Your task to perform on an android device: change the clock display to digital Image 0: 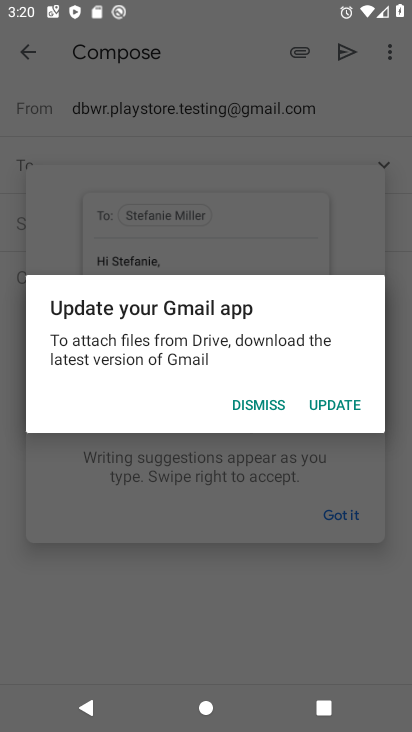
Step 0: press back button
Your task to perform on an android device: change the clock display to digital Image 1: 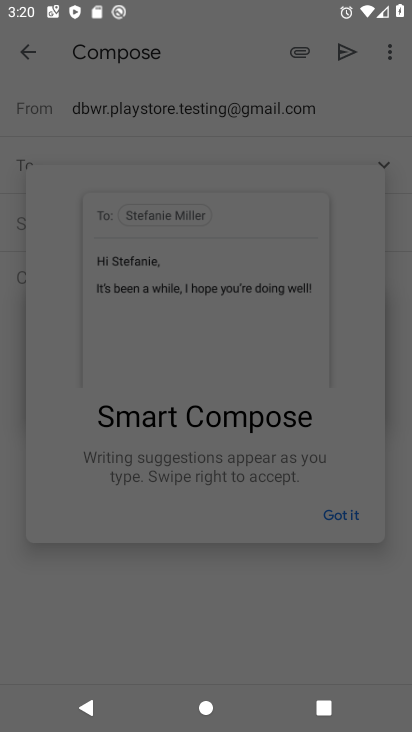
Step 1: press back button
Your task to perform on an android device: change the clock display to digital Image 2: 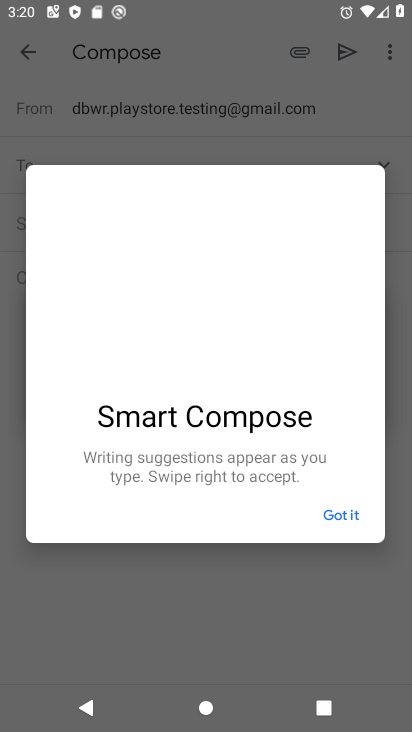
Step 2: press home button
Your task to perform on an android device: change the clock display to digital Image 3: 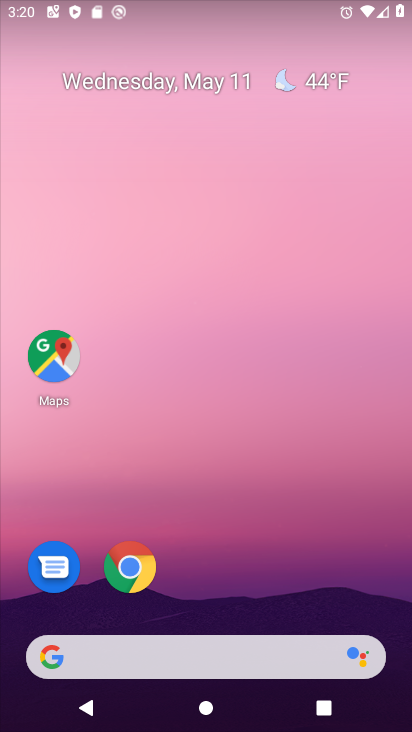
Step 3: drag from (300, 554) to (230, 67)
Your task to perform on an android device: change the clock display to digital Image 4: 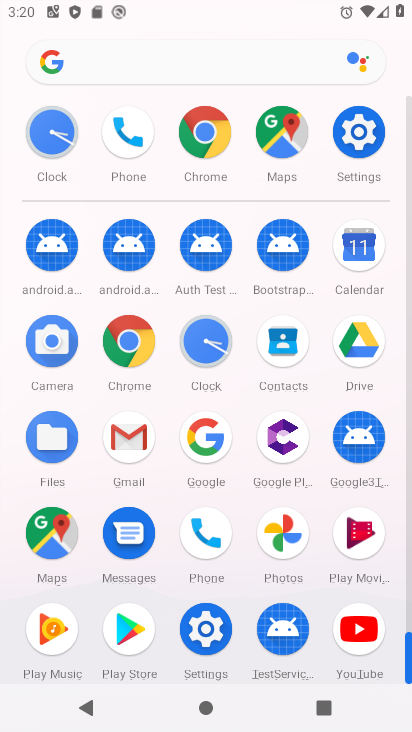
Step 4: drag from (4, 562) to (9, 208)
Your task to perform on an android device: change the clock display to digital Image 5: 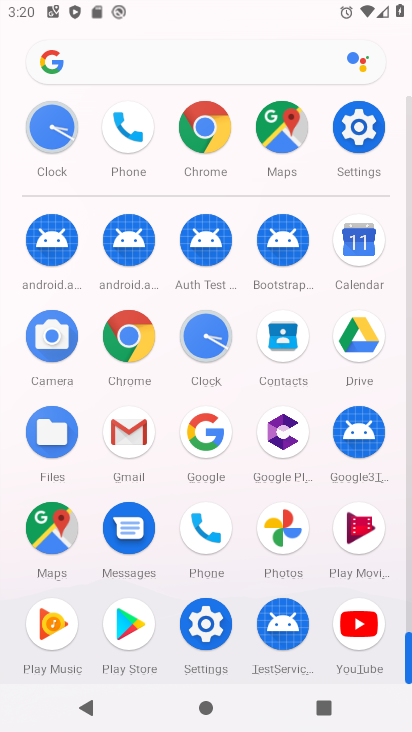
Step 5: click (203, 332)
Your task to perform on an android device: change the clock display to digital Image 6: 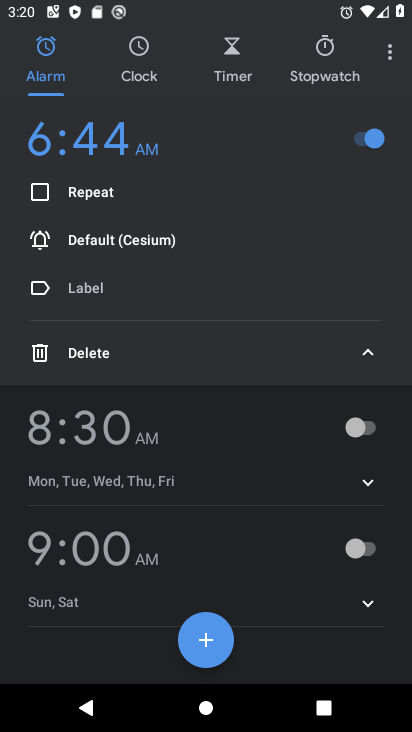
Step 6: drag from (382, 47) to (265, 93)
Your task to perform on an android device: change the clock display to digital Image 7: 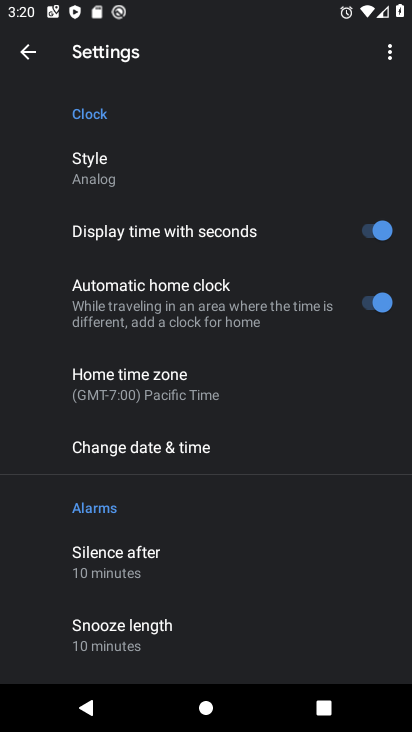
Step 7: click (139, 165)
Your task to perform on an android device: change the clock display to digital Image 8: 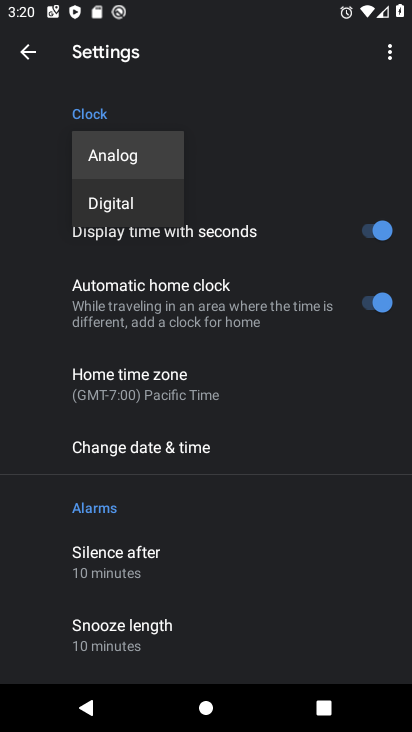
Step 8: click (132, 211)
Your task to perform on an android device: change the clock display to digital Image 9: 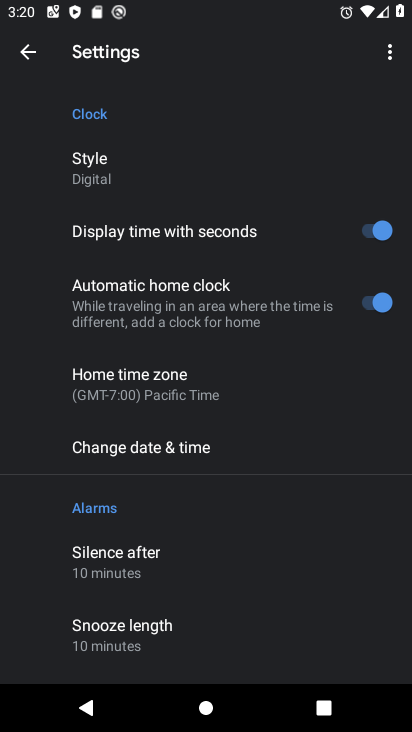
Step 9: task complete